Your task to perform on an android device: Go to accessibility settings Image 0: 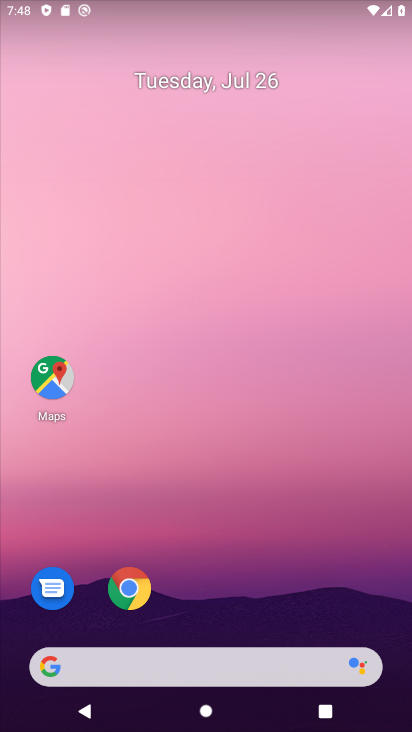
Step 0: drag from (298, 568) to (263, 74)
Your task to perform on an android device: Go to accessibility settings Image 1: 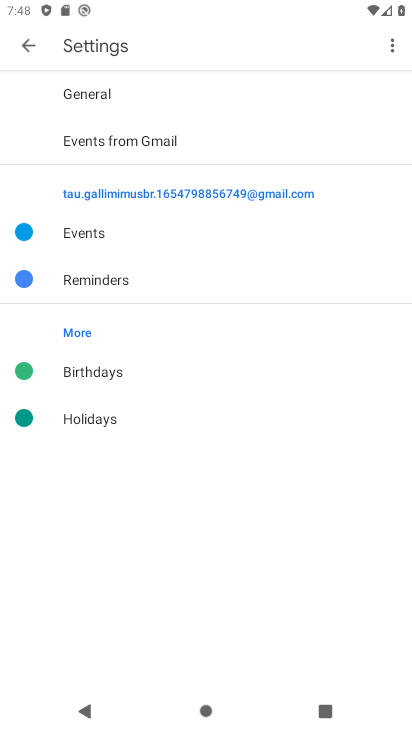
Step 1: press home button
Your task to perform on an android device: Go to accessibility settings Image 2: 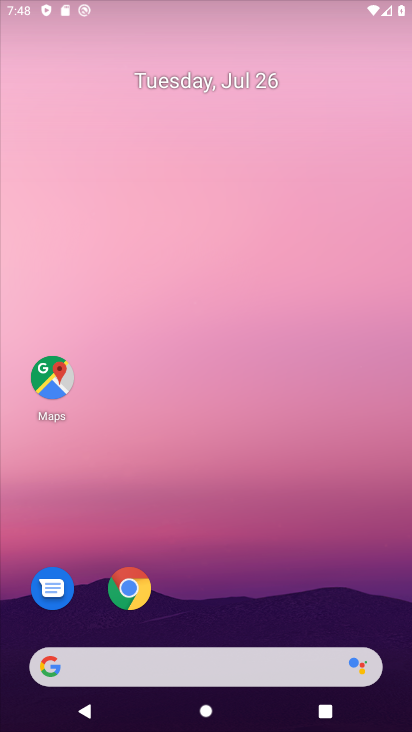
Step 2: drag from (317, 630) to (354, 74)
Your task to perform on an android device: Go to accessibility settings Image 3: 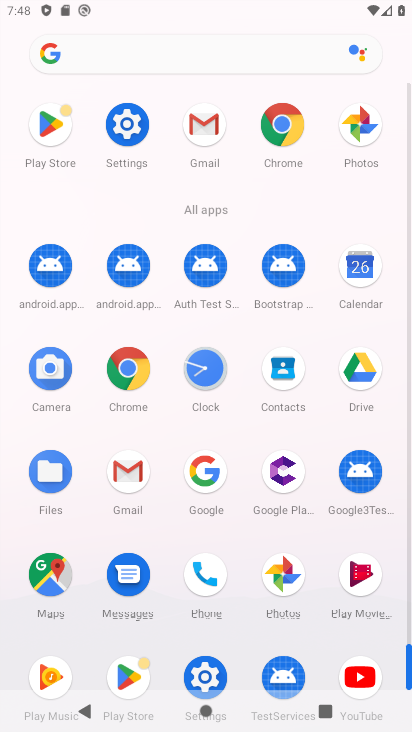
Step 3: click (126, 116)
Your task to perform on an android device: Go to accessibility settings Image 4: 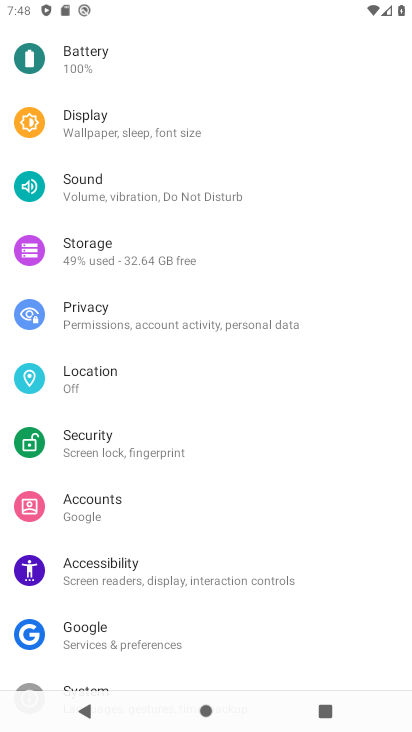
Step 4: drag from (204, 644) to (338, 345)
Your task to perform on an android device: Go to accessibility settings Image 5: 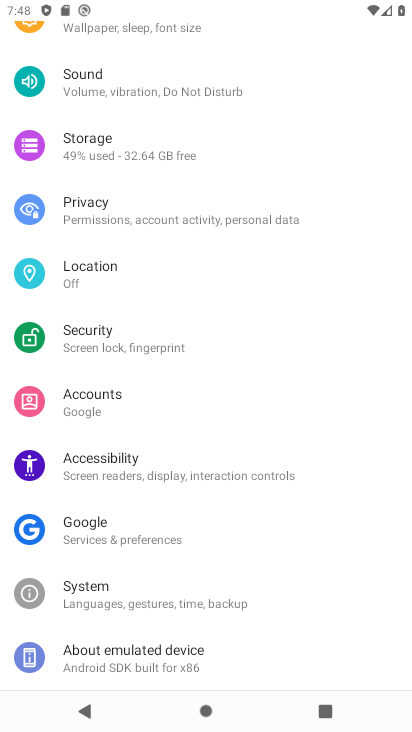
Step 5: click (117, 415)
Your task to perform on an android device: Go to accessibility settings Image 6: 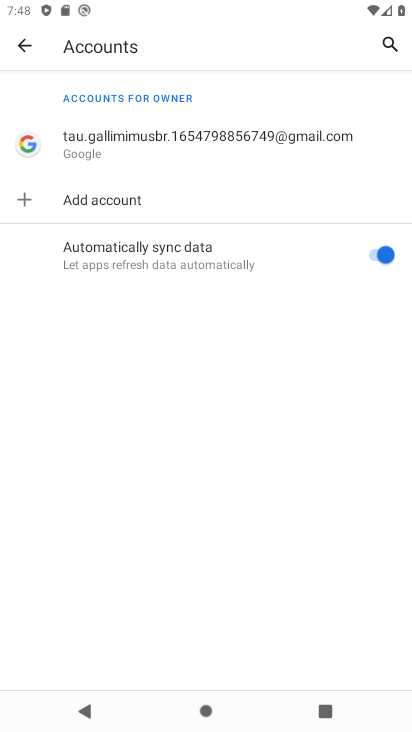
Step 6: click (31, 46)
Your task to perform on an android device: Go to accessibility settings Image 7: 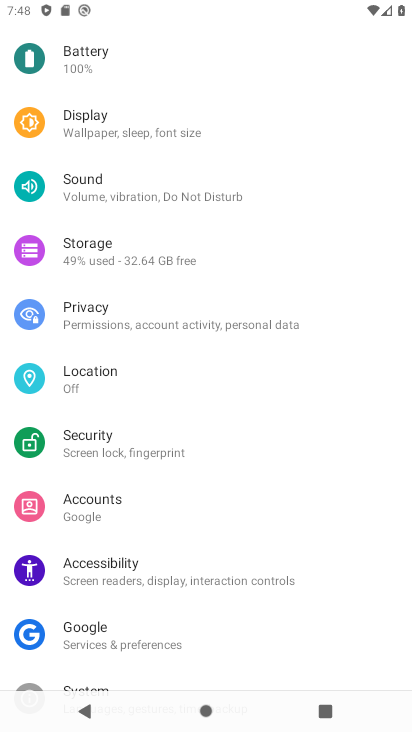
Step 7: click (129, 566)
Your task to perform on an android device: Go to accessibility settings Image 8: 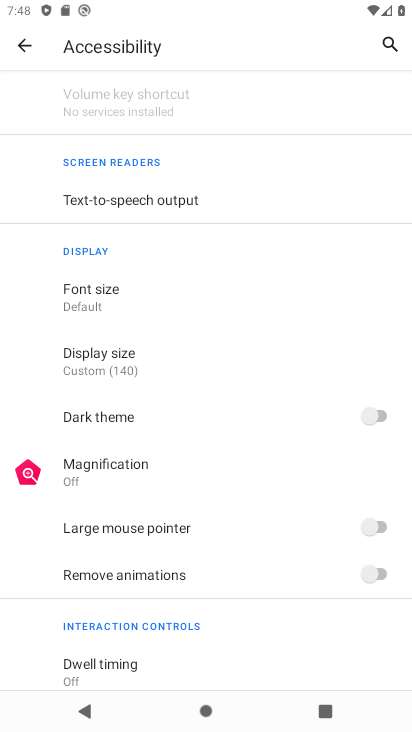
Step 8: task complete